Your task to perform on an android device: Open Chrome and go to the settings page Image 0: 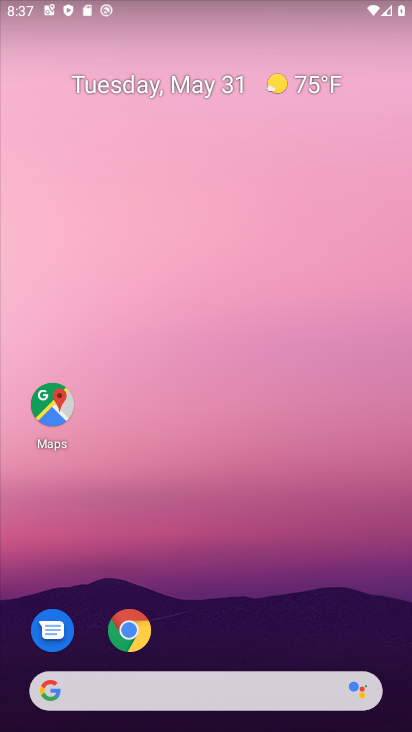
Step 0: drag from (197, 507) to (228, 259)
Your task to perform on an android device: Open Chrome and go to the settings page Image 1: 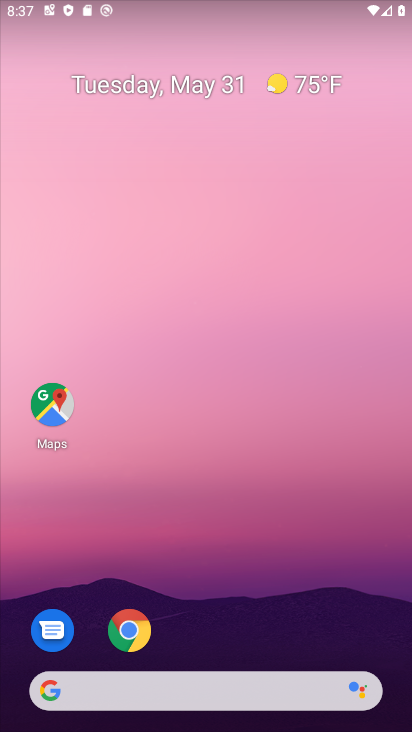
Step 1: drag from (155, 661) to (221, 218)
Your task to perform on an android device: Open Chrome and go to the settings page Image 2: 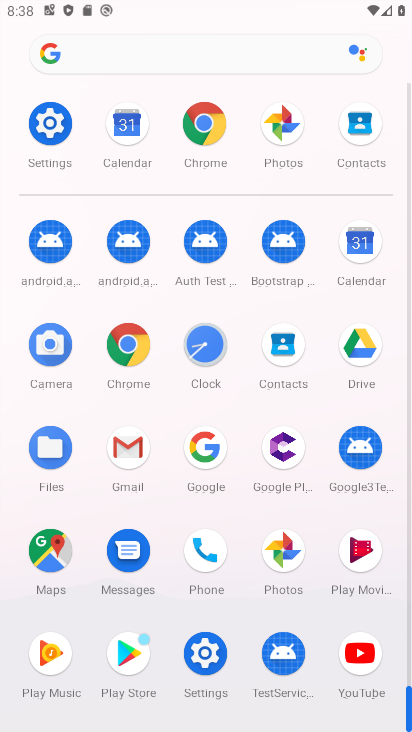
Step 2: click (141, 354)
Your task to perform on an android device: Open Chrome and go to the settings page Image 3: 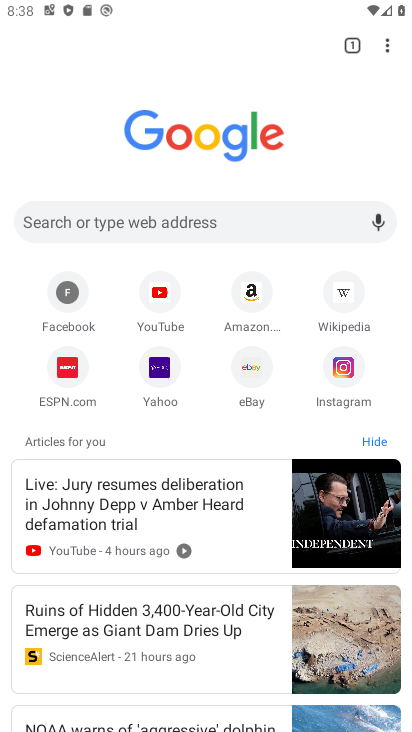
Step 3: click (388, 50)
Your task to perform on an android device: Open Chrome and go to the settings page Image 4: 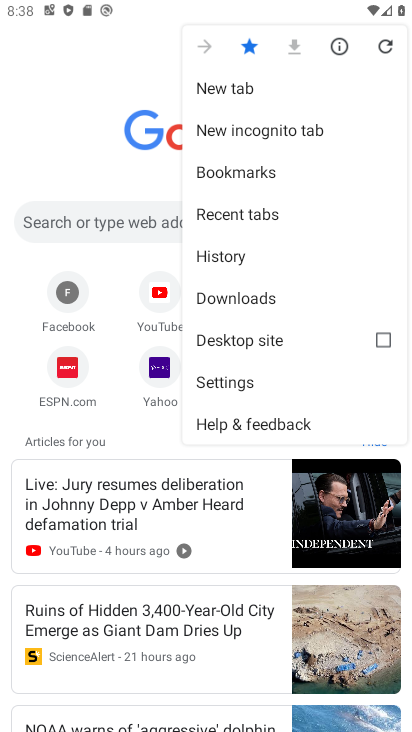
Step 4: click (239, 383)
Your task to perform on an android device: Open Chrome and go to the settings page Image 5: 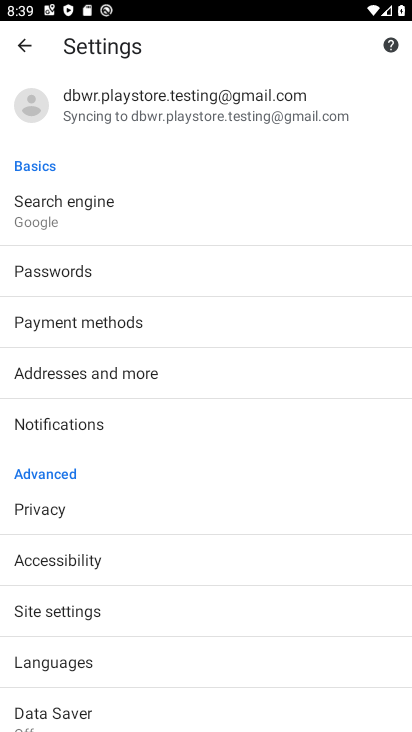
Step 5: task complete